Your task to perform on an android device: turn off notifications settings in the gmail app Image 0: 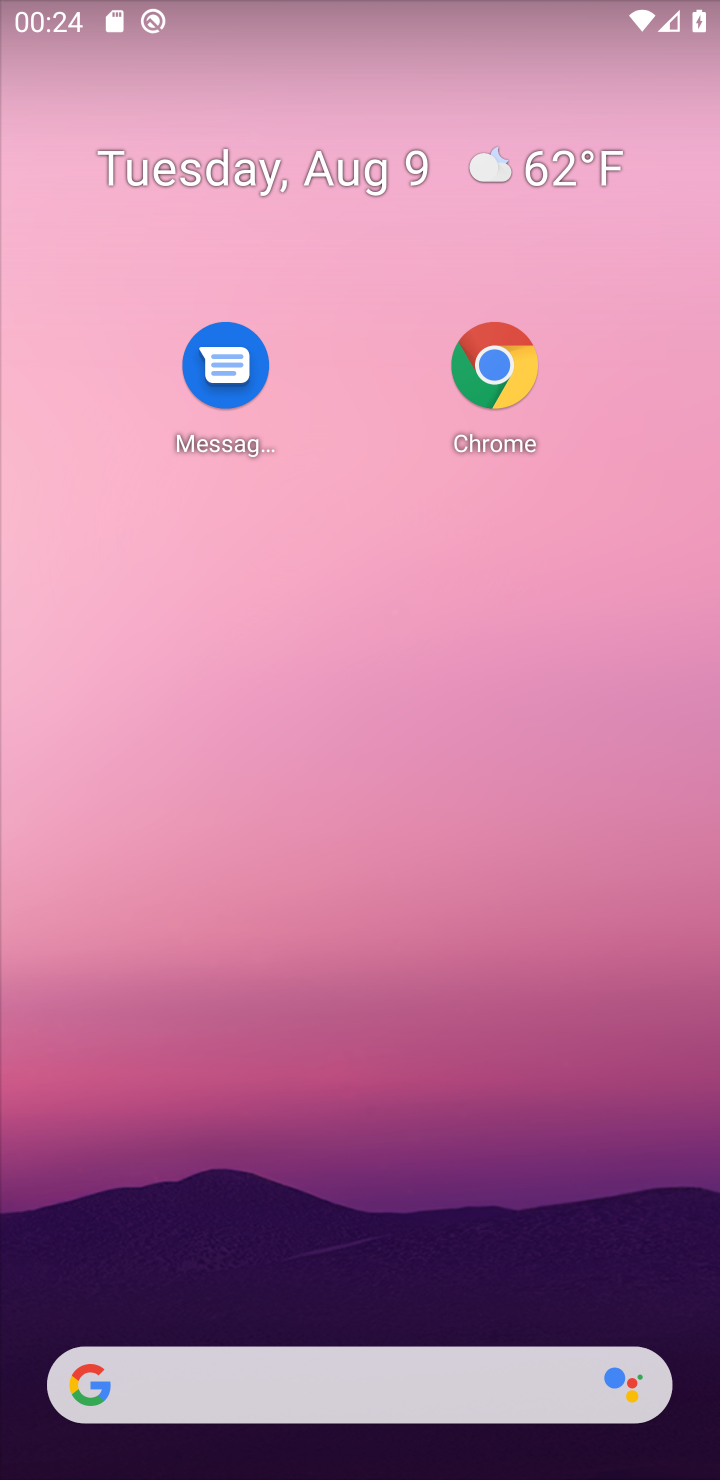
Step 0: drag from (395, 970) to (337, 278)
Your task to perform on an android device: turn off notifications settings in the gmail app Image 1: 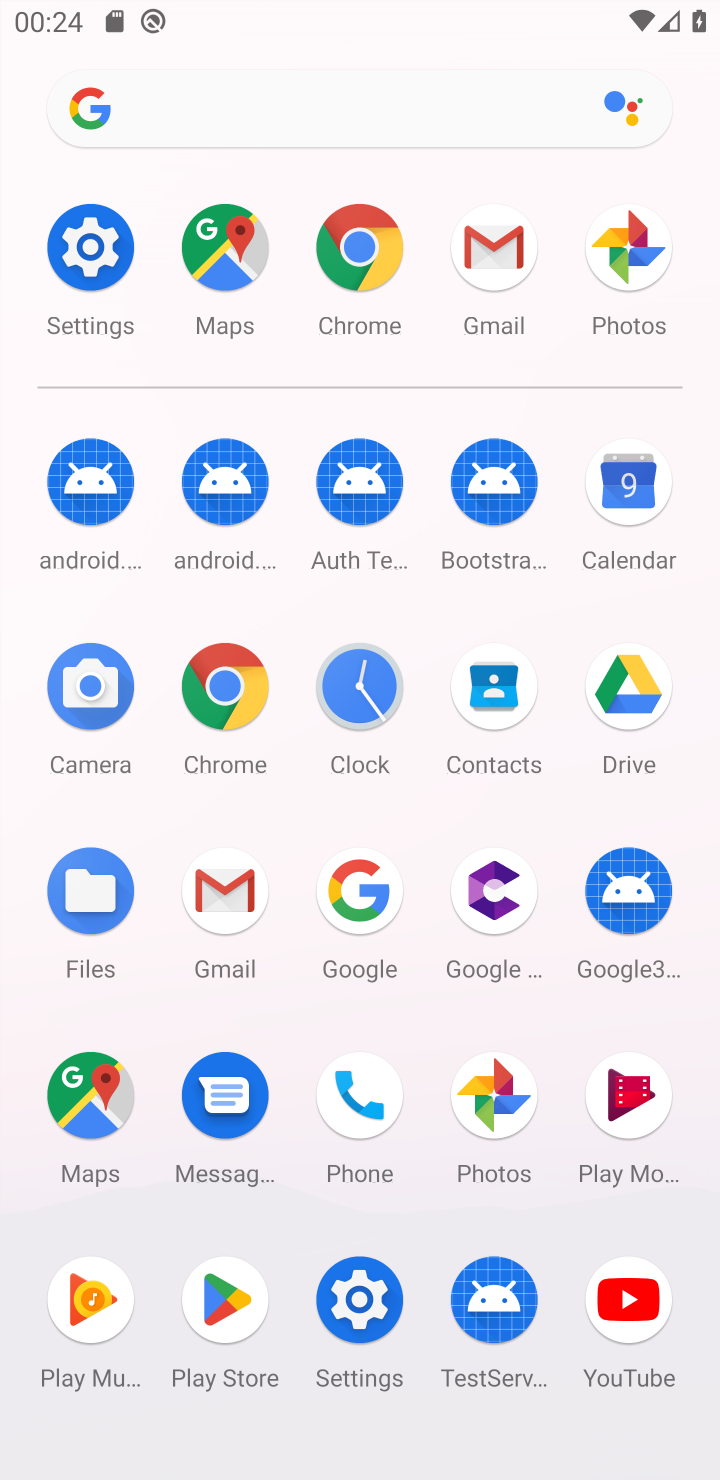
Step 1: click (105, 257)
Your task to perform on an android device: turn off notifications settings in the gmail app Image 2: 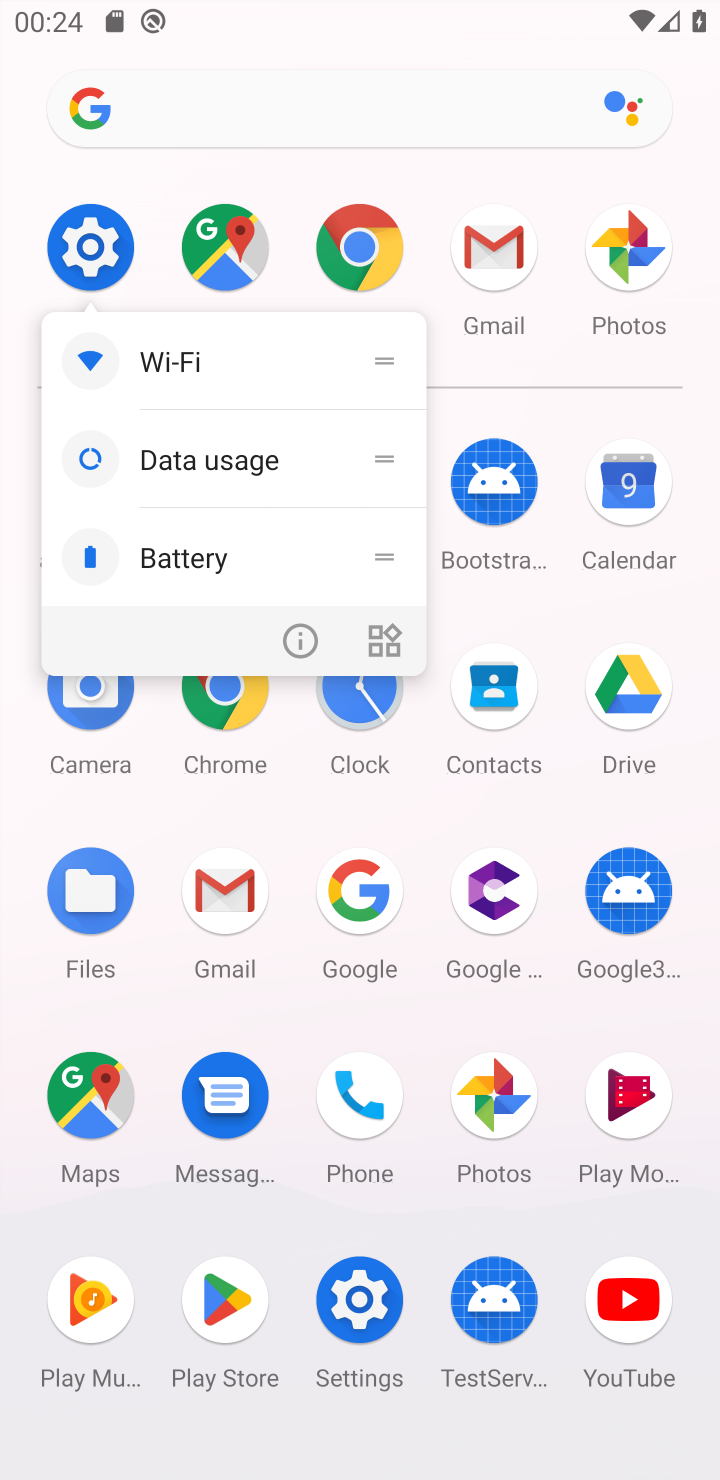
Step 2: click (105, 257)
Your task to perform on an android device: turn off notifications settings in the gmail app Image 3: 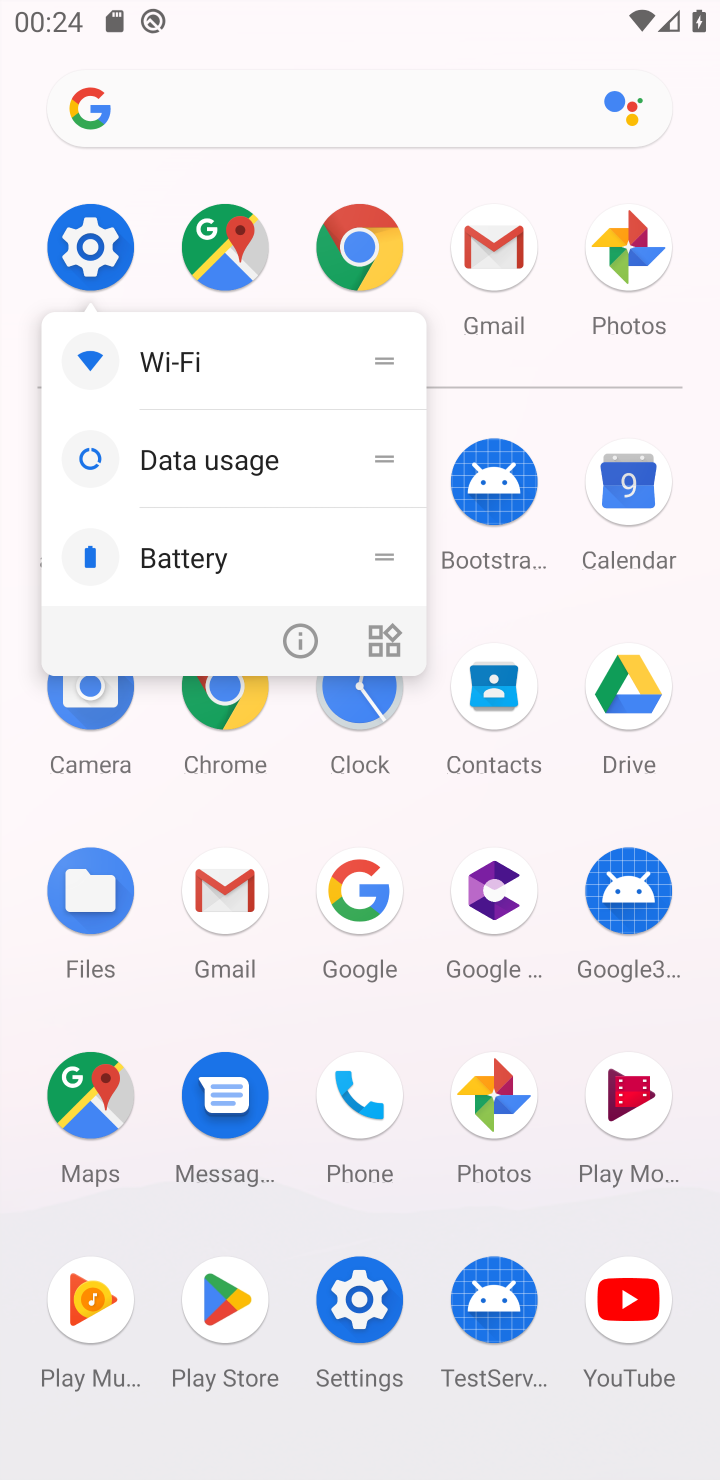
Step 3: click (98, 237)
Your task to perform on an android device: turn off notifications settings in the gmail app Image 4: 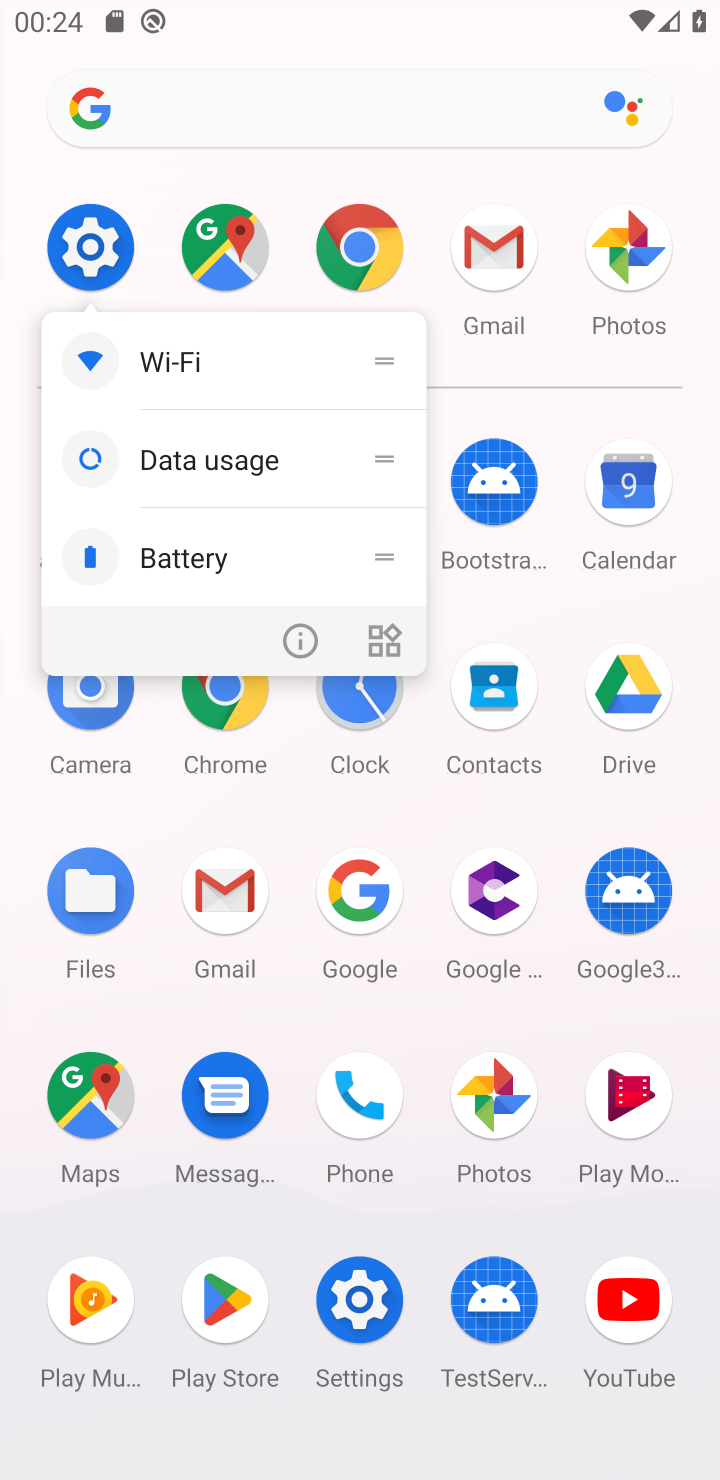
Step 4: click (98, 237)
Your task to perform on an android device: turn off notifications settings in the gmail app Image 5: 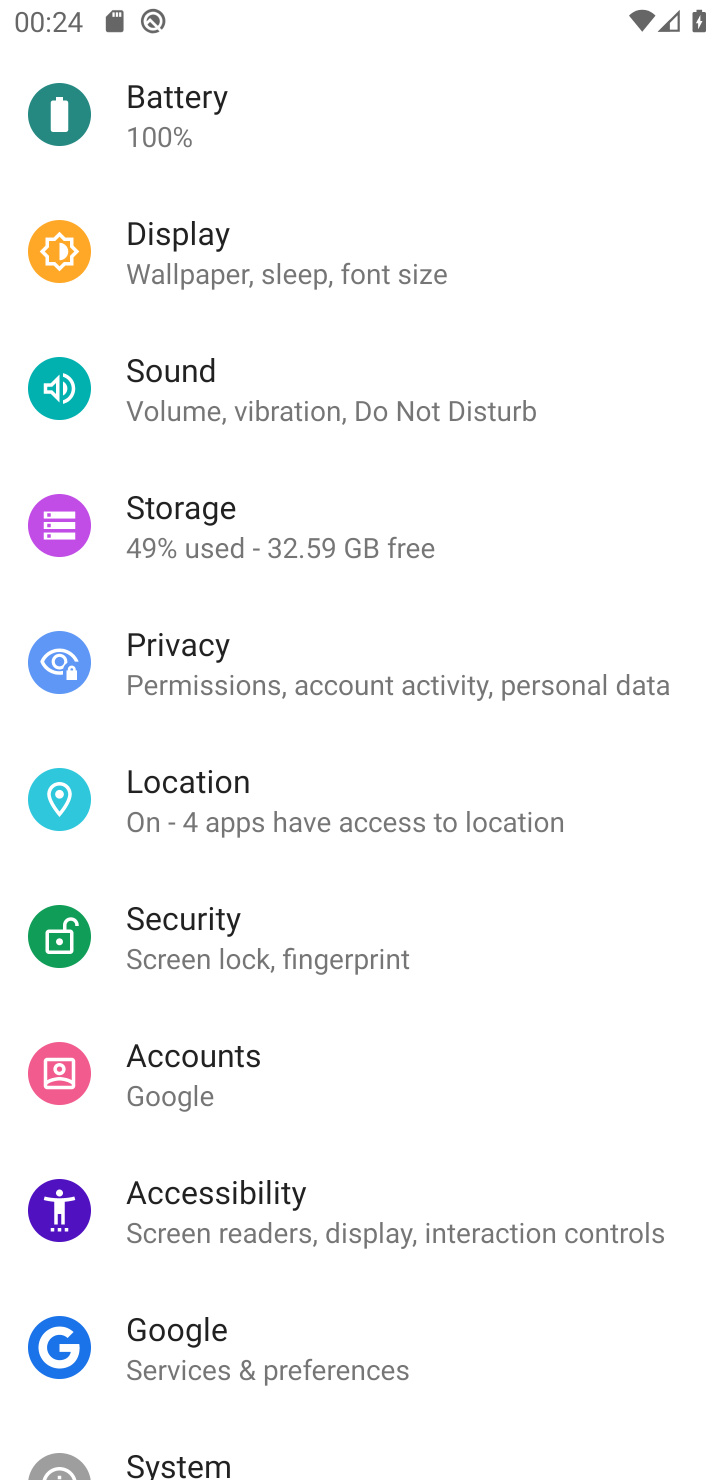
Step 5: press home button
Your task to perform on an android device: turn off notifications settings in the gmail app Image 6: 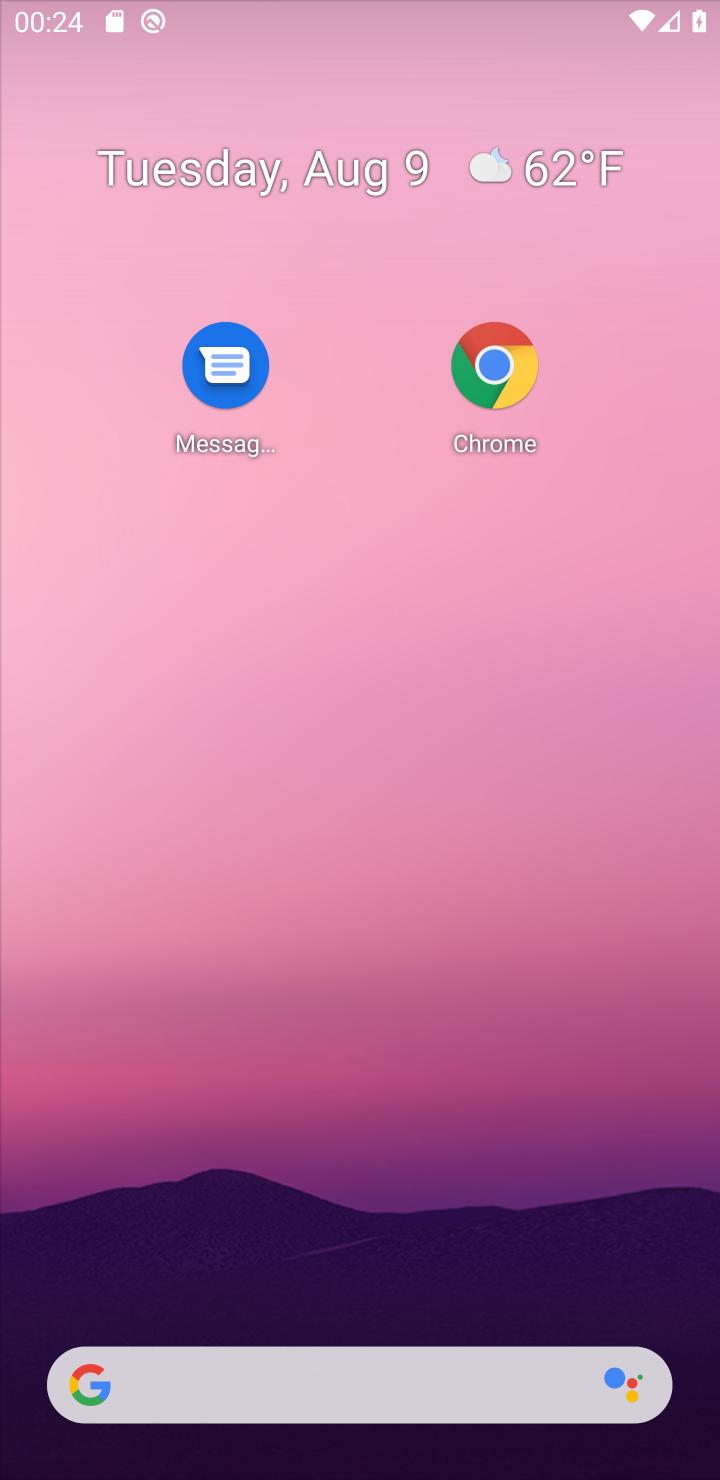
Step 6: drag from (305, 1217) to (360, 361)
Your task to perform on an android device: turn off notifications settings in the gmail app Image 7: 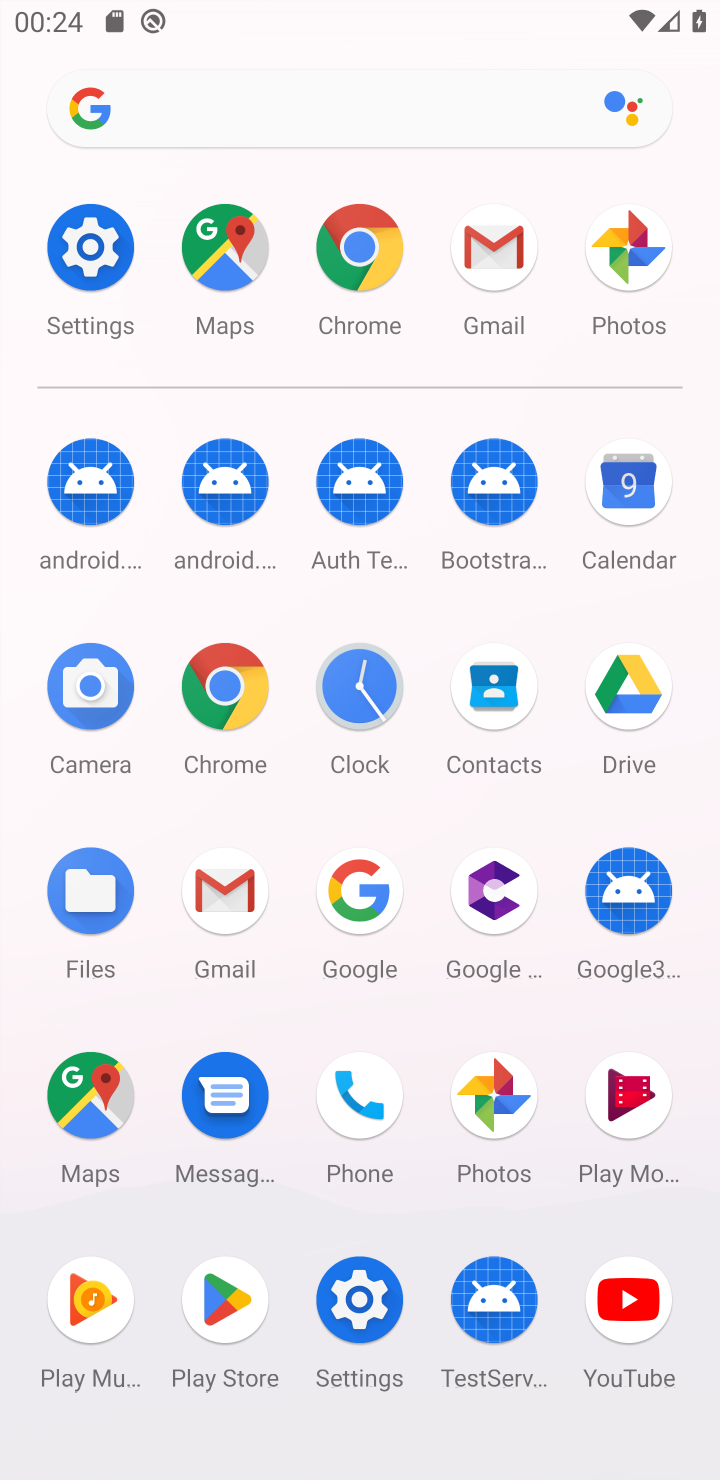
Step 7: click (500, 241)
Your task to perform on an android device: turn off notifications settings in the gmail app Image 8: 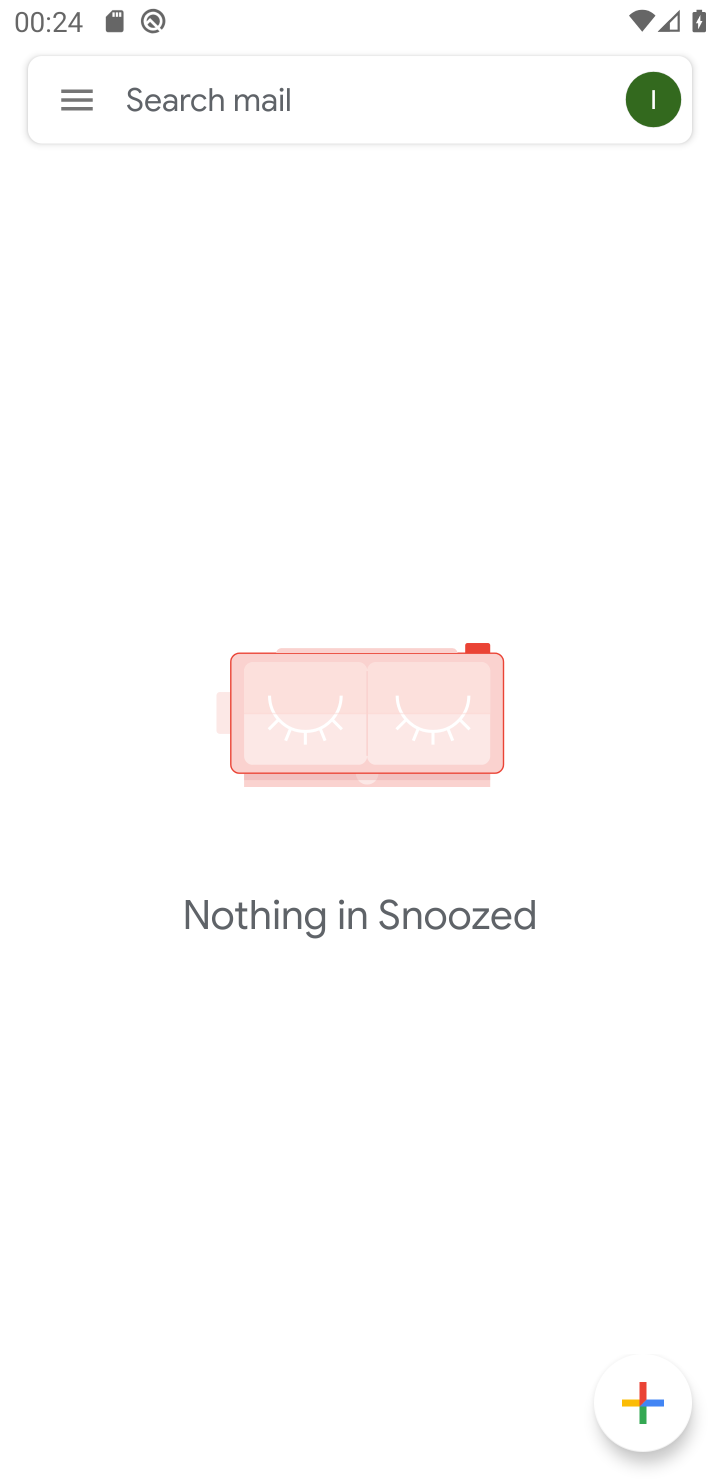
Step 8: click (80, 98)
Your task to perform on an android device: turn off notifications settings in the gmail app Image 9: 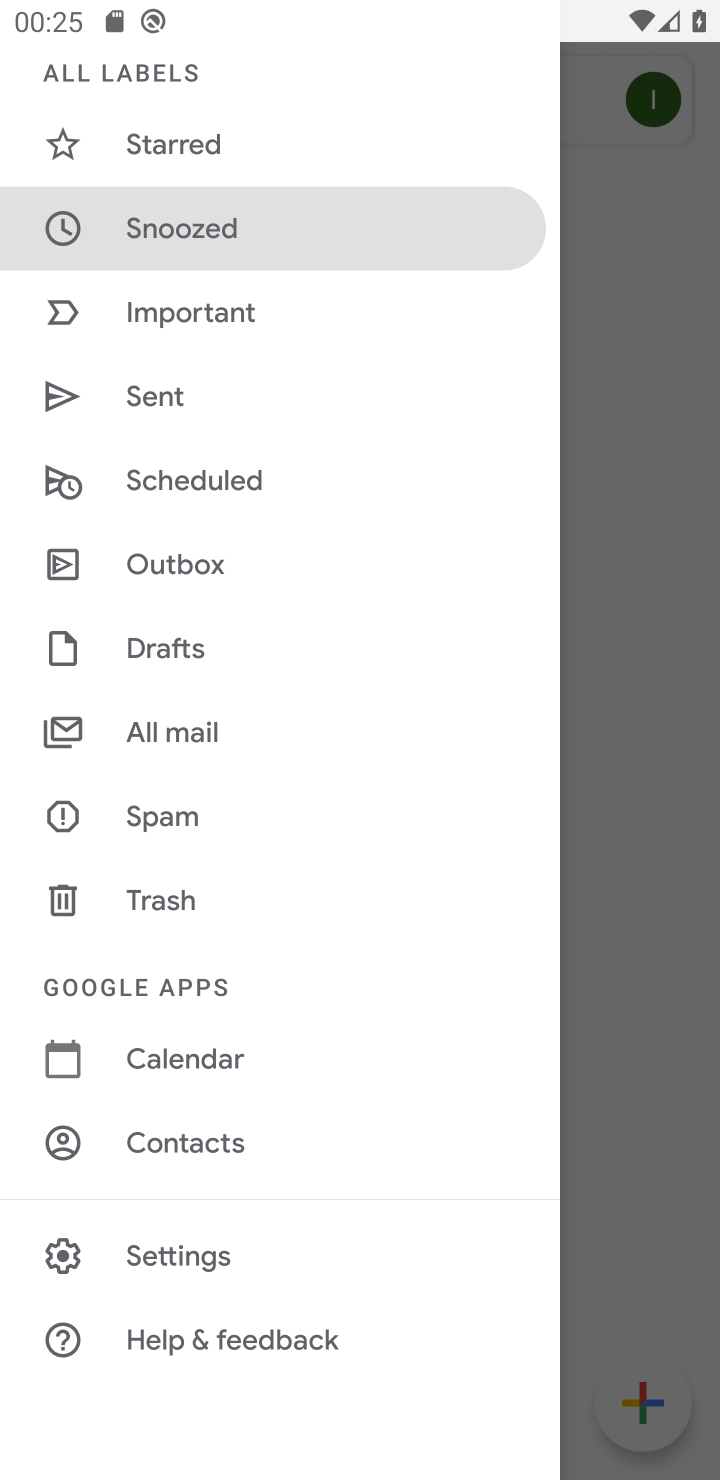
Step 9: click (188, 1231)
Your task to perform on an android device: turn off notifications settings in the gmail app Image 10: 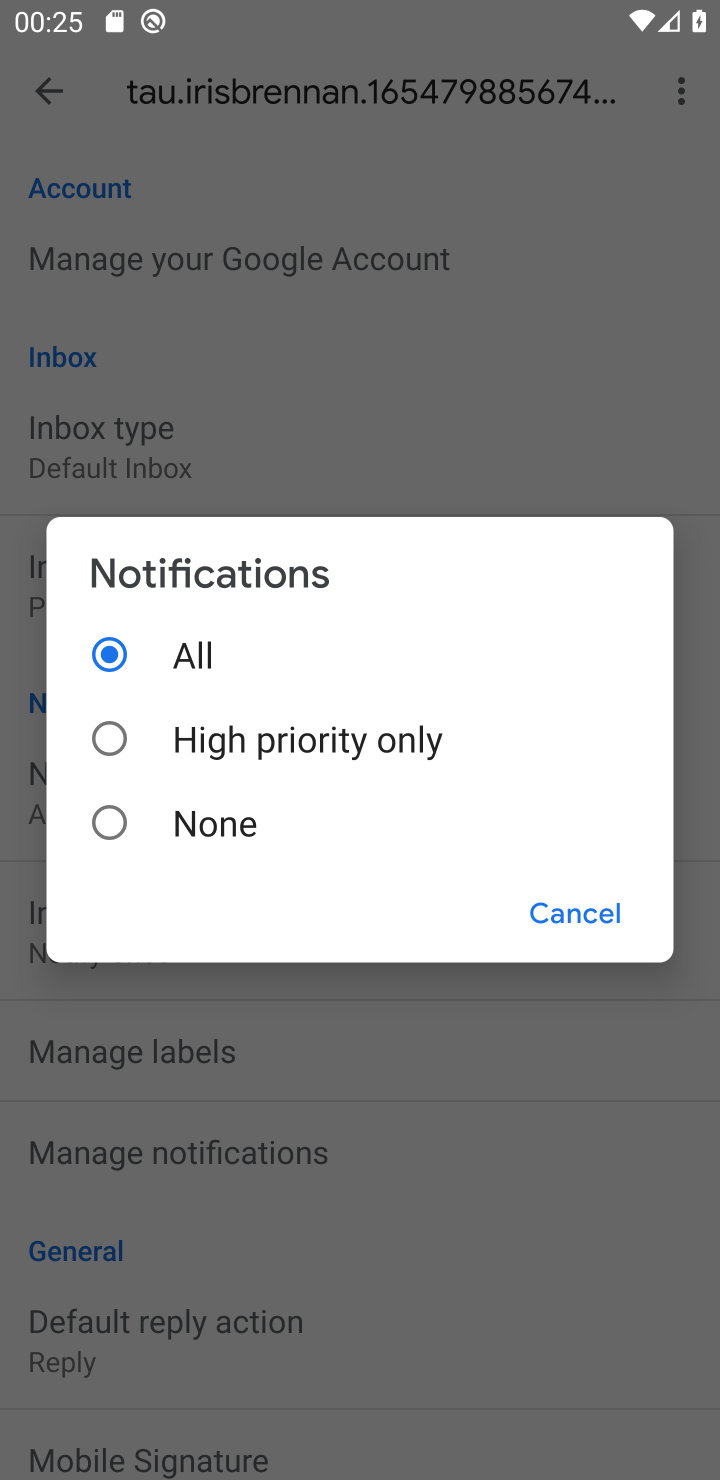
Step 10: click (215, 783)
Your task to perform on an android device: turn off notifications settings in the gmail app Image 11: 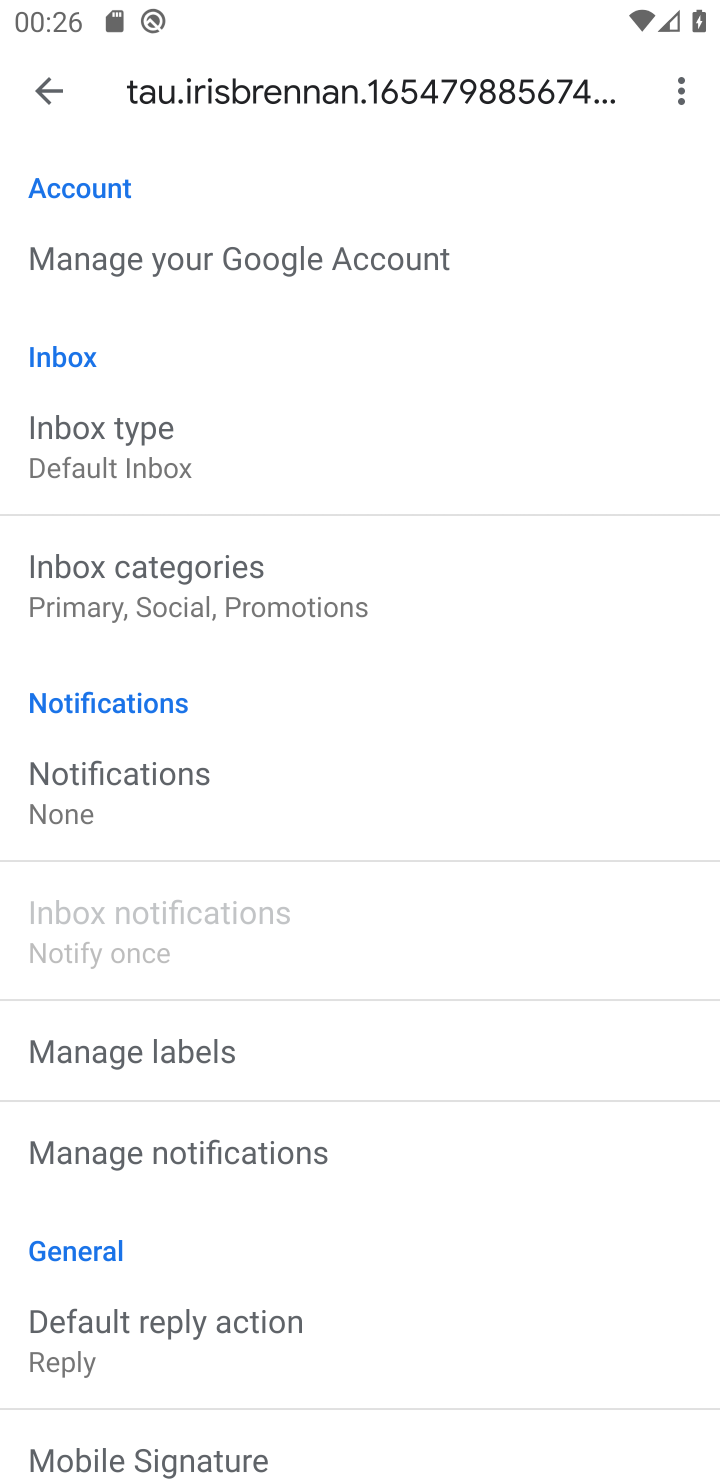
Step 11: task complete